Your task to perform on an android device: change notification settings in the gmail app Image 0: 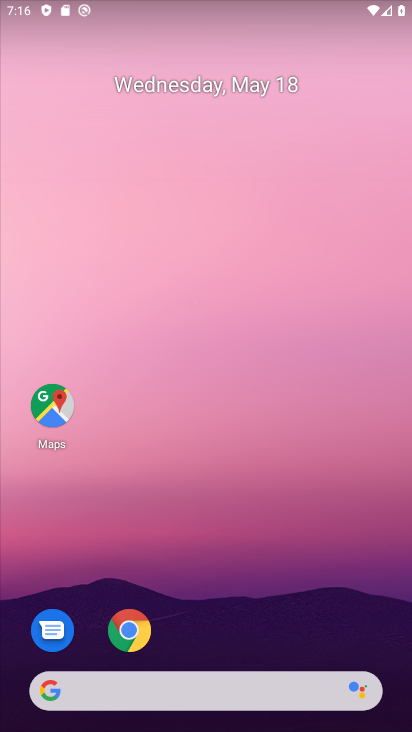
Step 0: drag from (251, 563) to (168, 271)
Your task to perform on an android device: change notification settings in the gmail app Image 1: 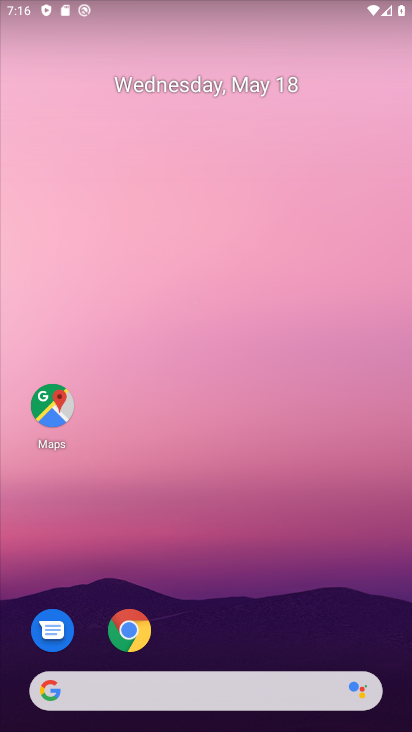
Step 1: drag from (216, 532) to (98, 76)
Your task to perform on an android device: change notification settings in the gmail app Image 2: 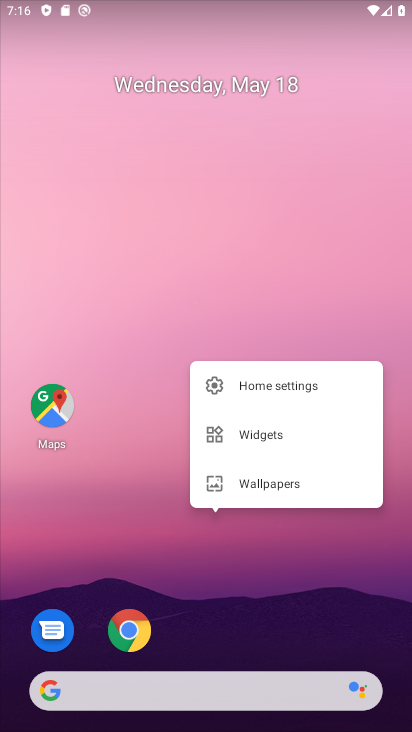
Step 2: click (126, 361)
Your task to perform on an android device: change notification settings in the gmail app Image 3: 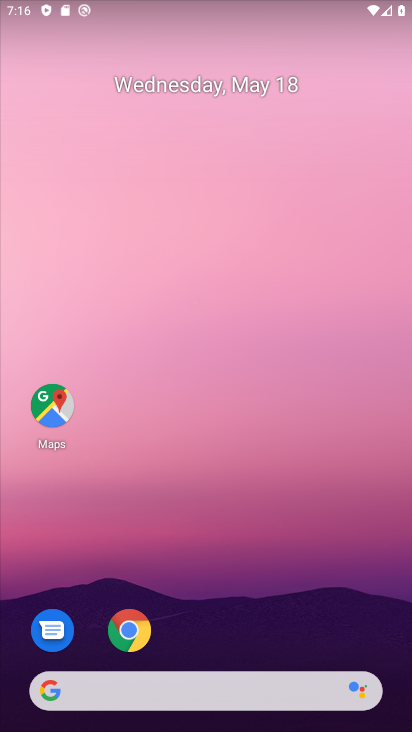
Step 3: drag from (242, 575) to (232, 91)
Your task to perform on an android device: change notification settings in the gmail app Image 4: 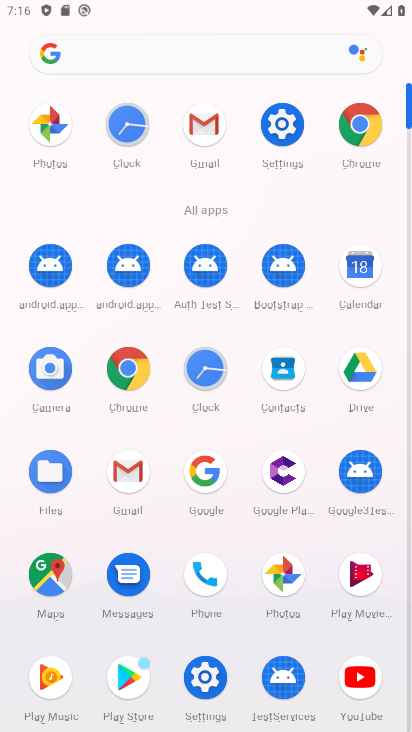
Step 4: click (132, 473)
Your task to perform on an android device: change notification settings in the gmail app Image 5: 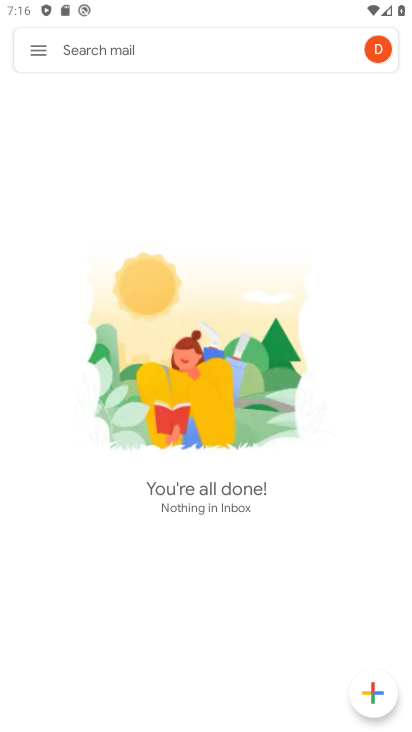
Step 5: click (35, 50)
Your task to perform on an android device: change notification settings in the gmail app Image 6: 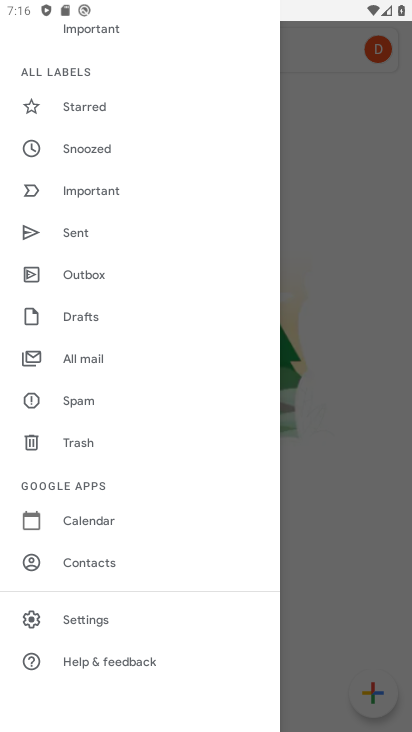
Step 6: click (87, 618)
Your task to perform on an android device: change notification settings in the gmail app Image 7: 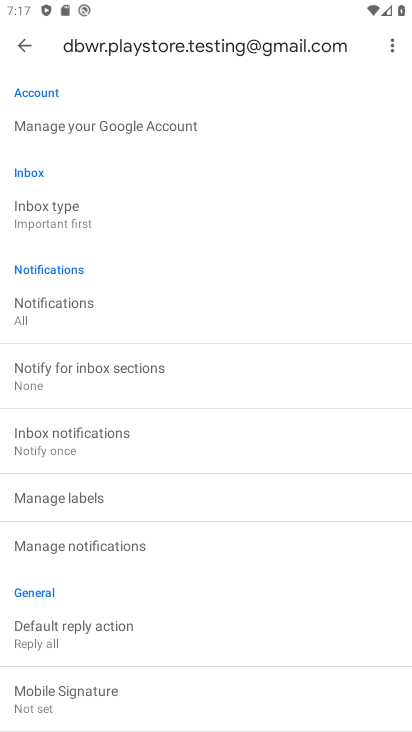
Step 7: click (26, 46)
Your task to perform on an android device: change notification settings in the gmail app Image 8: 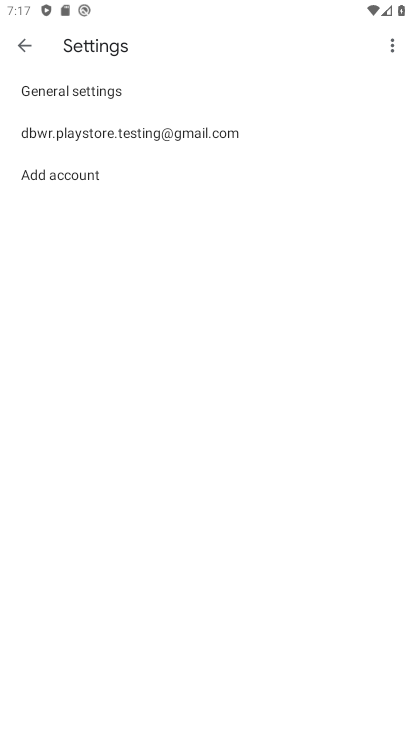
Step 8: click (74, 91)
Your task to perform on an android device: change notification settings in the gmail app Image 9: 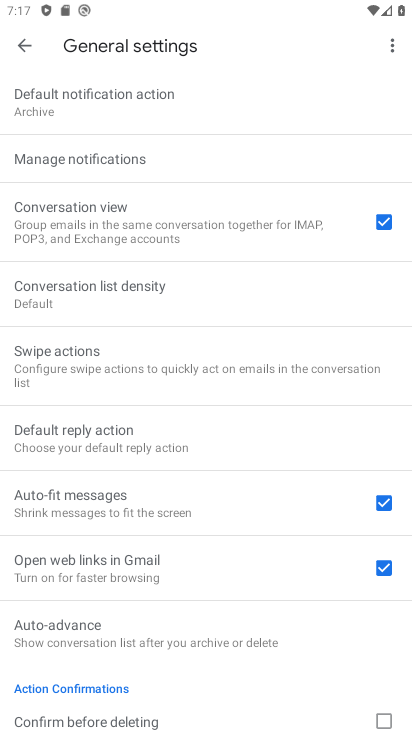
Step 9: click (85, 155)
Your task to perform on an android device: change notification settings in the gmail app Image 10: 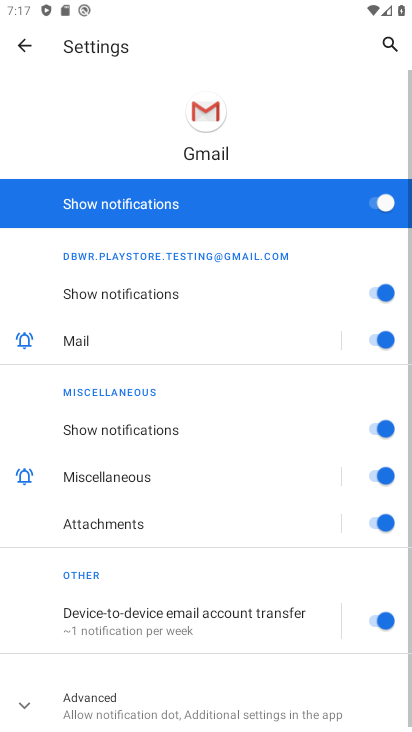
Step 10: click (390, 211)
Your task to perform on an android device: change notification settings in the gmail app Image 11: 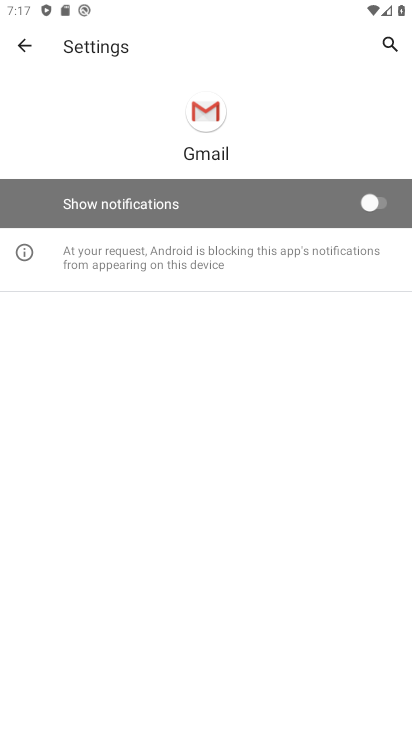
Step 11: task complete